Your task to perform on an android device: check battery use Image 0: 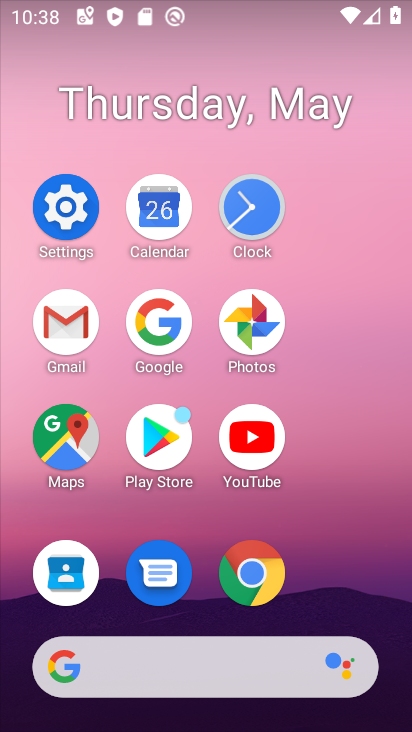
Step 0: click (74, 208)
Your task to perform on an android device: check battery use Image 1: 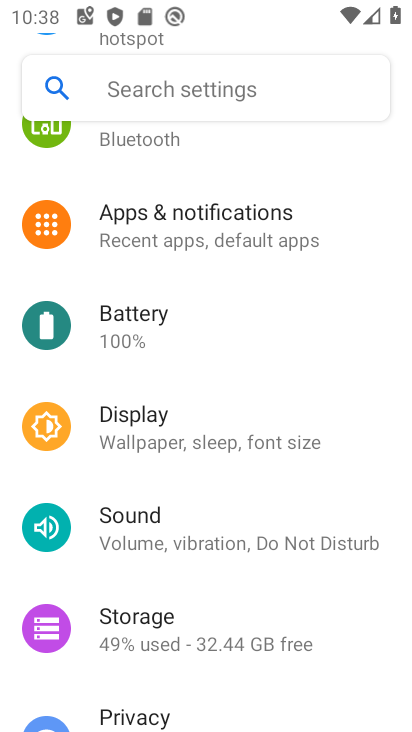
Step 1: click (229, 326)
Your task to perform on an android device: check battery use Image 2: 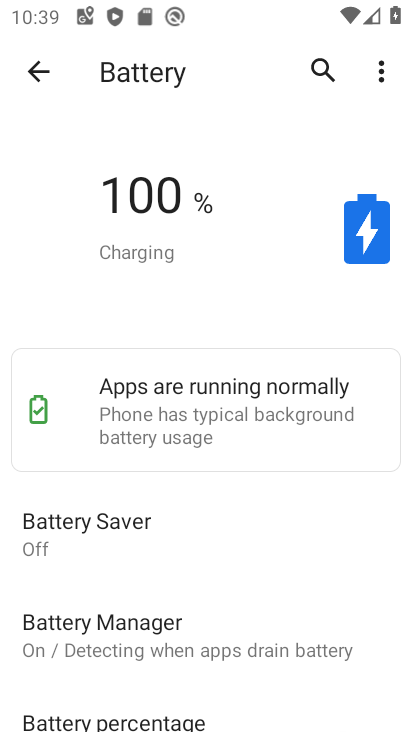
Step 2: click (382, 82)
Your task to perform on an android device: check battery use Image 3: 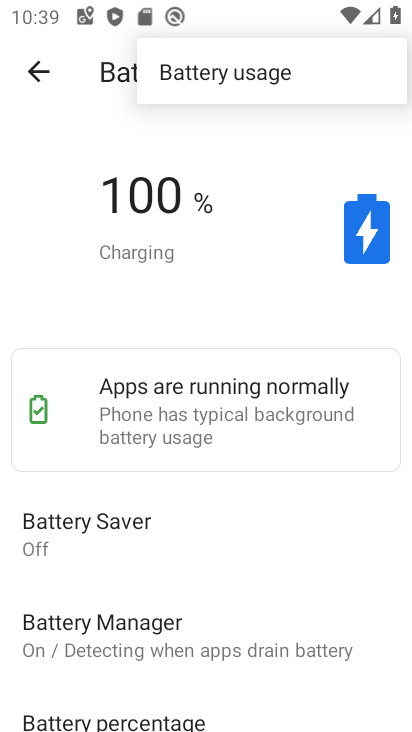
Step 3: click (266, 63)
Your task to perform on an android device: check battery use Image 4: 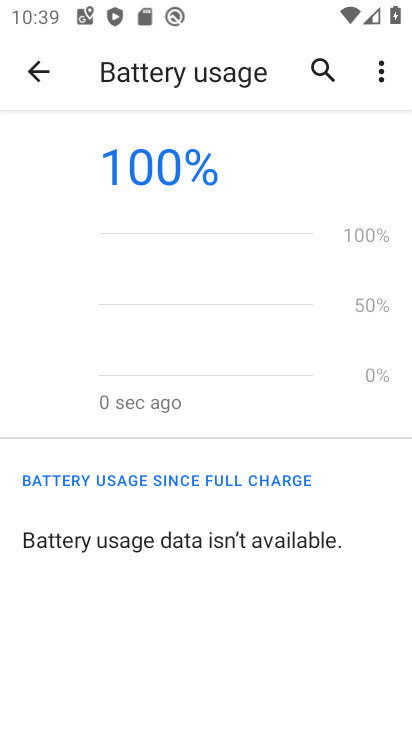
Step 4: task complete